Your task to perform on an android device: change text size in settings app Image 0: 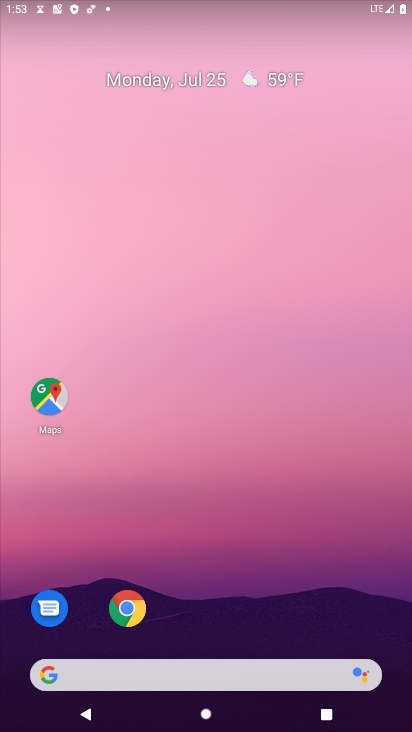
Step 0: drag from (287, 572) to (200, 2)
Your task to perform on an android device: change text size in settings app Image 1: 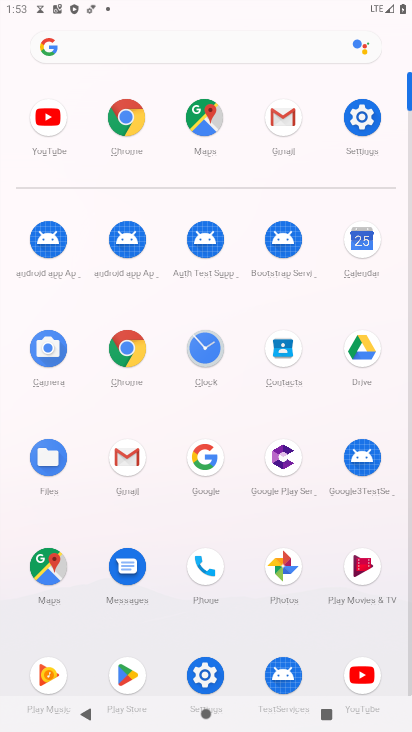
Step 1: click (353, 114)
Your task to perform on an android device: change text size in settings app Image 2: 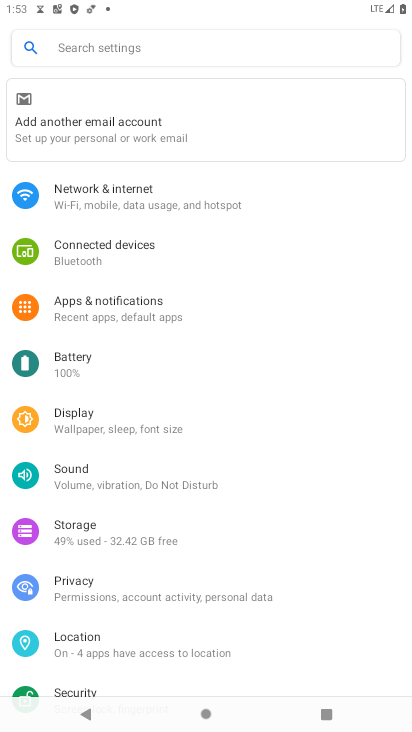
Step 2: click (138, 420)
Your task to perform on an android device: change text size in settings app Image 3: 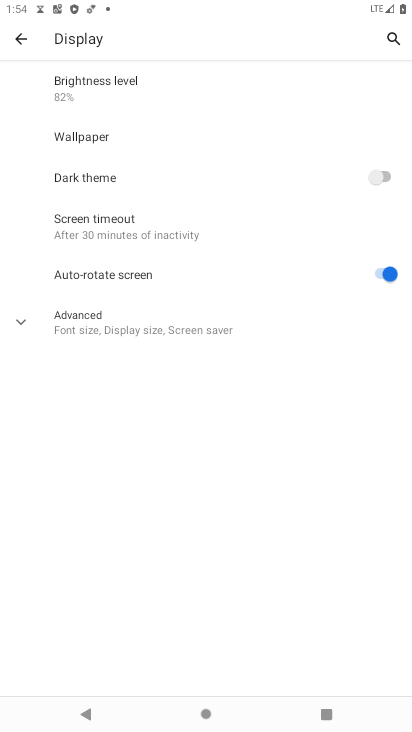
Step 3: click (145, 316)
Your task to perform on an android device: change text size in settings app Image 4: 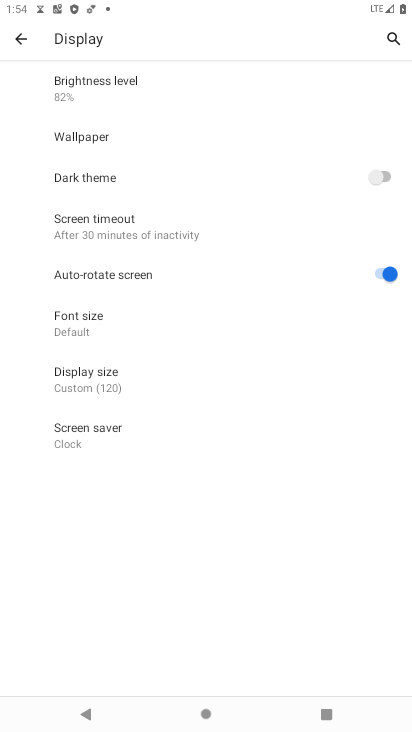
Step 4: click (123, 335)
Your task to perform on an android device: change text size in settings app Image 5: 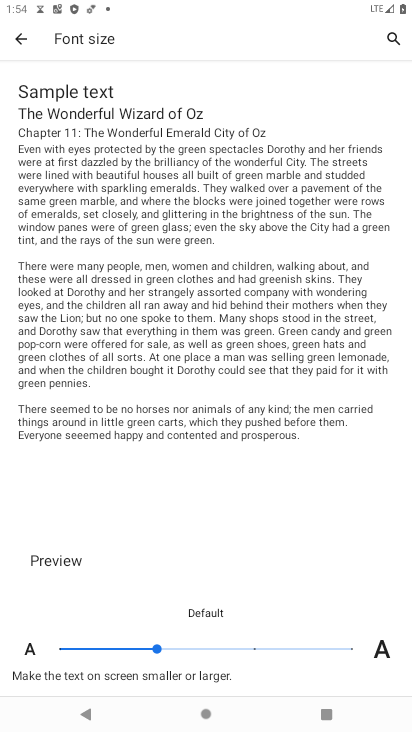
Step 5: click (251, 650)
Your task to perform on an android device: change text size in settings app Image 6: 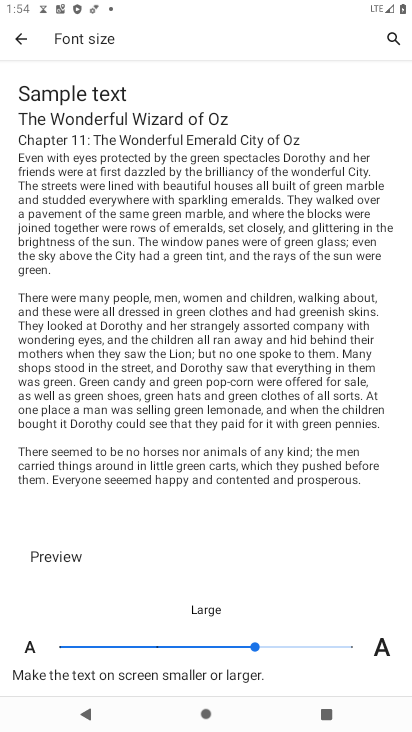
Step 6: task complete